Your task to perform on an android device: change the clock display to analog Image 0: 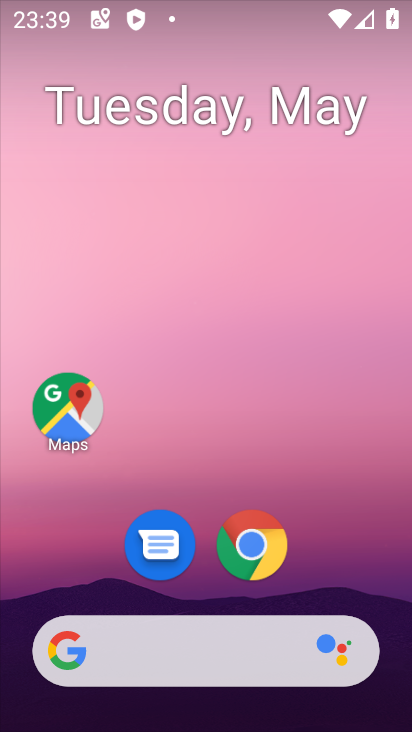
Step 0: drag from (211, 565) to (233, 274)
Your task to perform on an android device: change the clock display to analog Image 1: 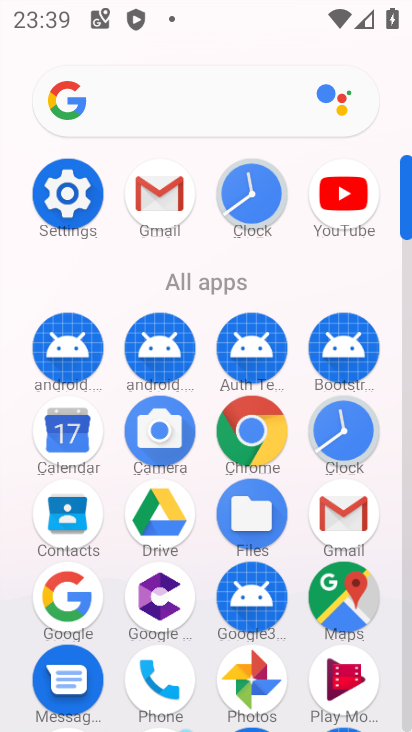
Step 1: drag from (299, 621) to (306, 333)
Your task to perform on an android device: change the clock display to analog Image 2: 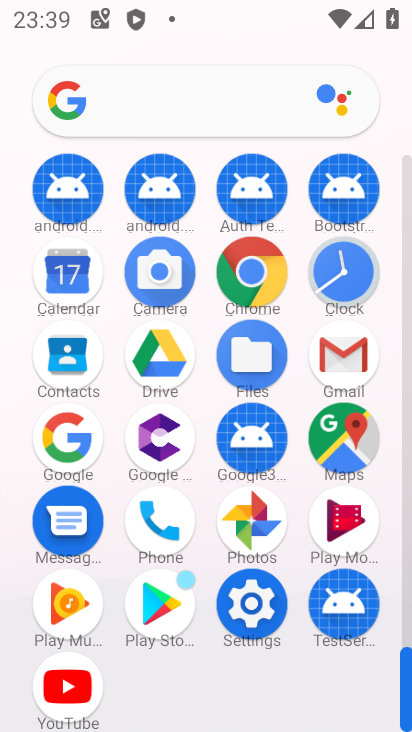
Step 2: click (252, 607)
Your task to perform on an android device: change the clock display to analog Image 3: 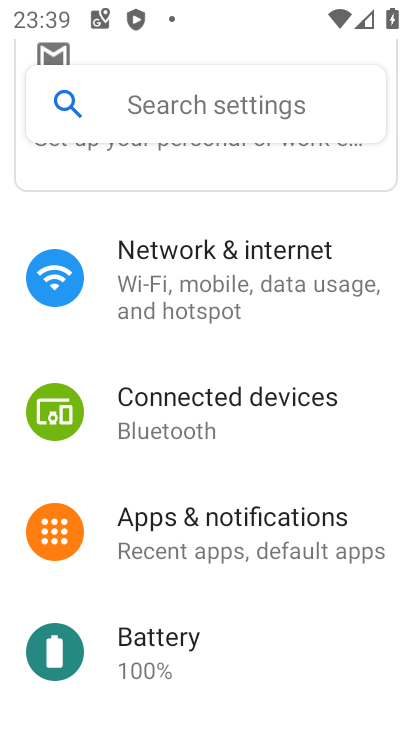
Step 3: press home button
Your task to perform on an android device: change the clock display to analog Image 4: 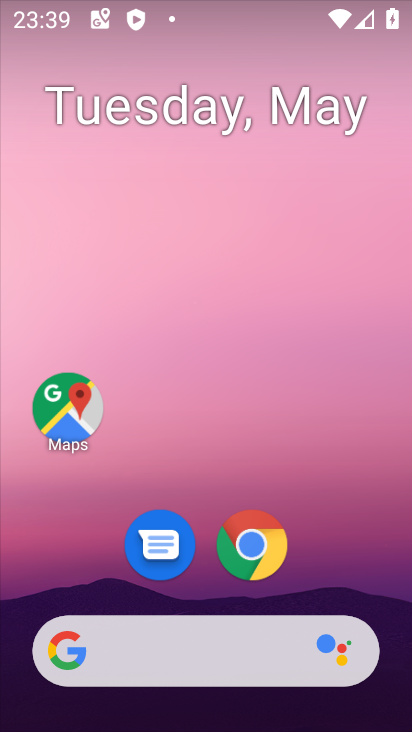
Step 4: drag from (218, 440) to (218, 200)
Your task to perform on an android device: change the clock display to analog Image 5: 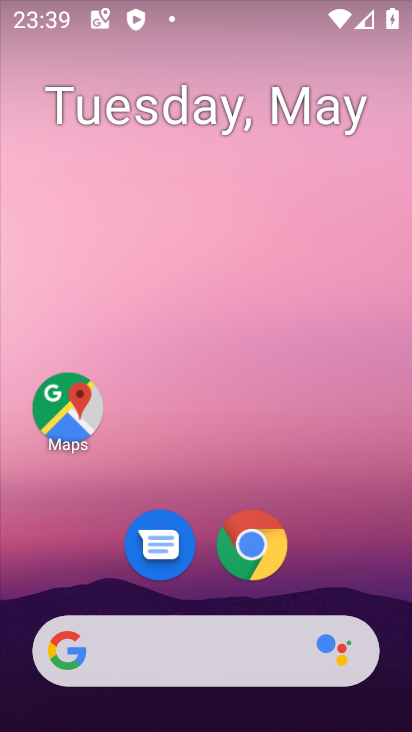
Step 5: drag from (214, 484) to (210, 158)
Your task to perform on an android device: change the clock display to analog Image 6: 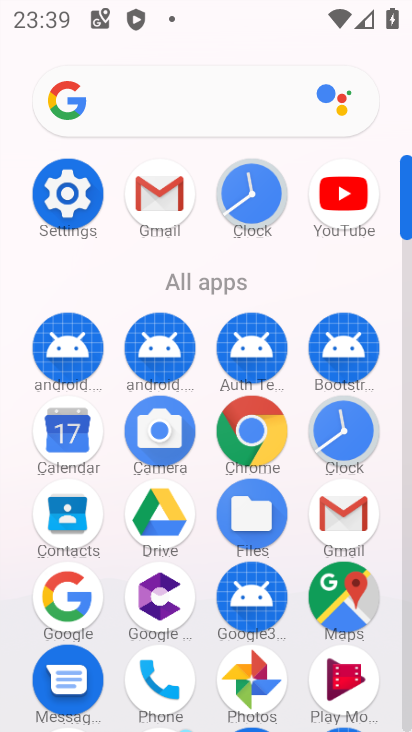
Step 6: click (350, 440)
Your task to perform on an android device: change the clock display to analog Image 7: 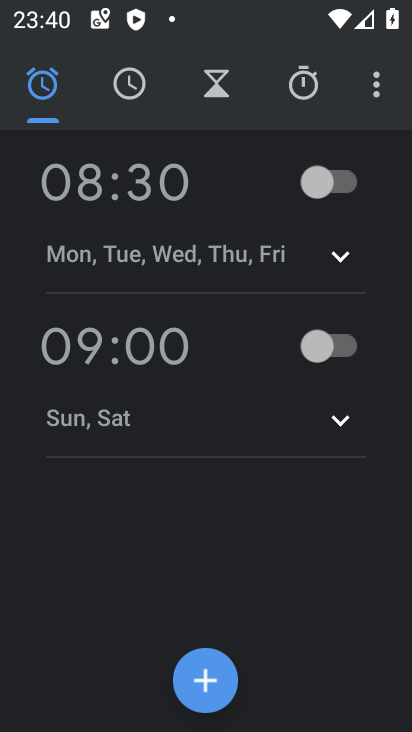
Step 7: click (382, 81)
Your task to perform on an android device: change the clock display to analog Image 8: 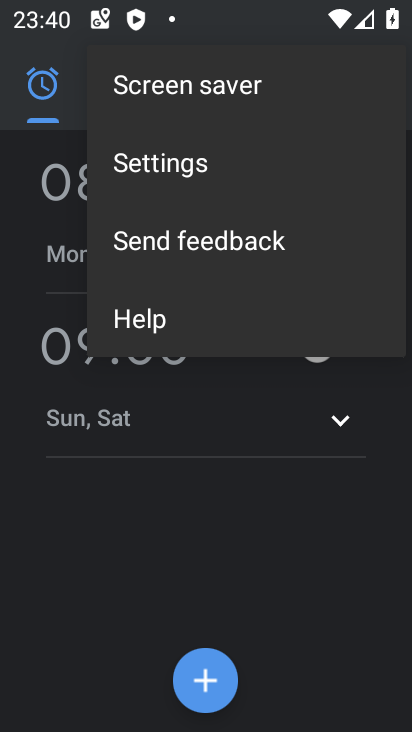
Step 8: click (143, 162)
Your task to perform on an android device: change the clock display to analog Image 9: 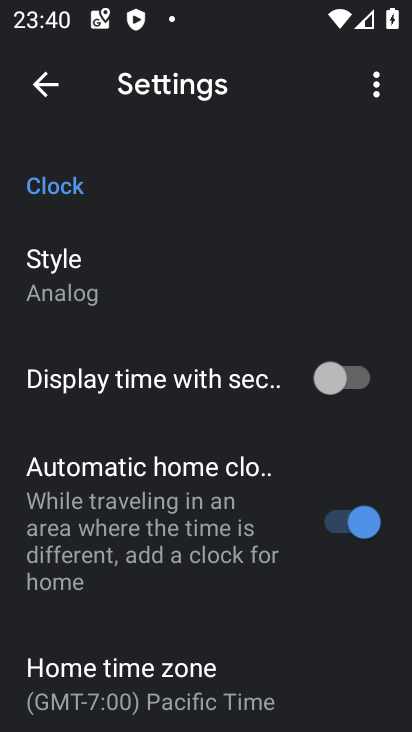
Step 9: click (88, 291)
Your task to perform on an android device: change the clock display to analog Image 10: 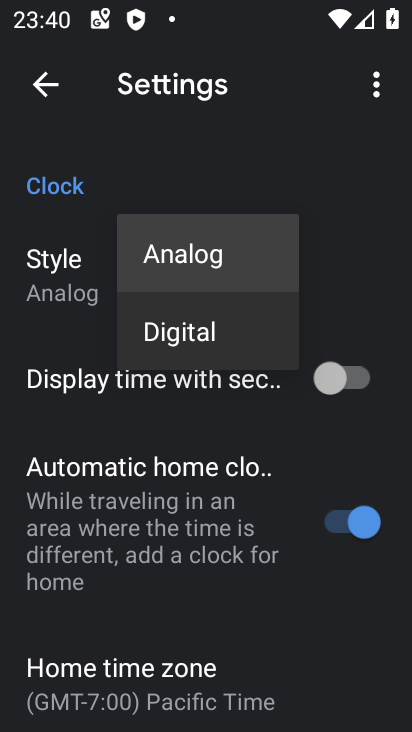
Step 10: click (195, 328)
Your task to perform on an android device: change the clock display to analog Image 11: 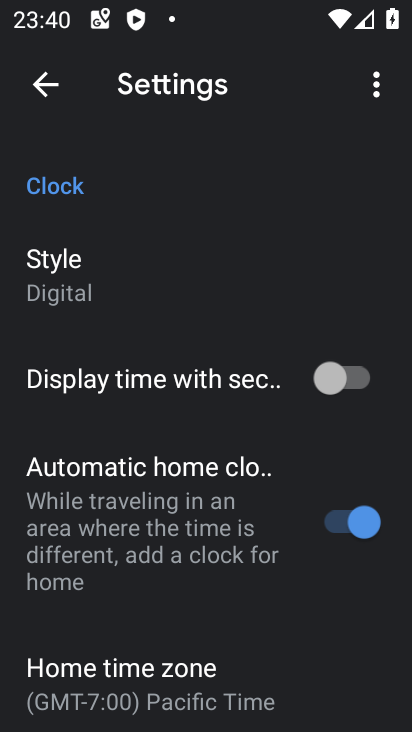
Step 11: task complete